Your task to perform on an android device: Show me productivity apps on the Play Store Image 0: 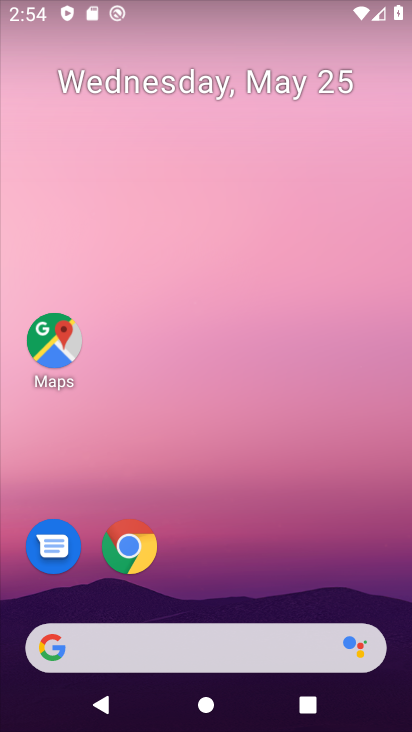
Step 0: click (178, 296)
Your task to perform on an android device: Show me productivity apps on the Play Store Image 1: 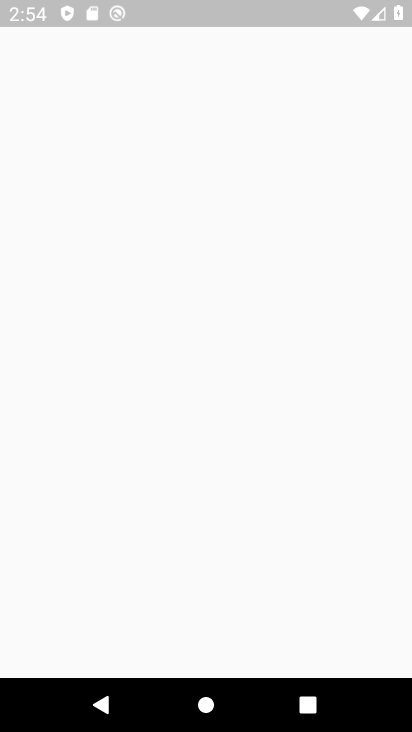
Step 1: press home button
Your task to perform on an android device: Show me productivity apps on the Play Store Image 2: 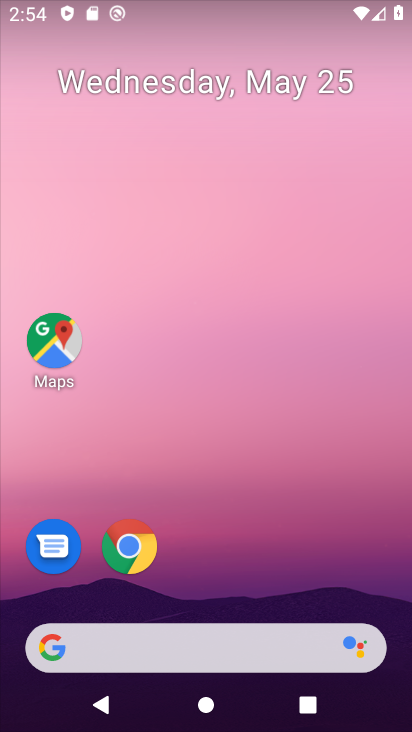
Step 2: drag from (223, 589) to (95, 132)
Your task to perform on an android device: Show me productivity apps on the Play Store Image 3: 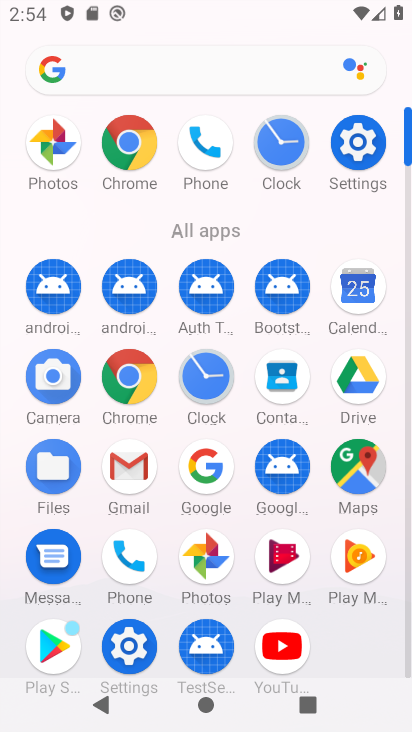
Step 3: click (50, 640)
Your task to perform on an android device: Show me productivity apps on the Play Store Image 4: 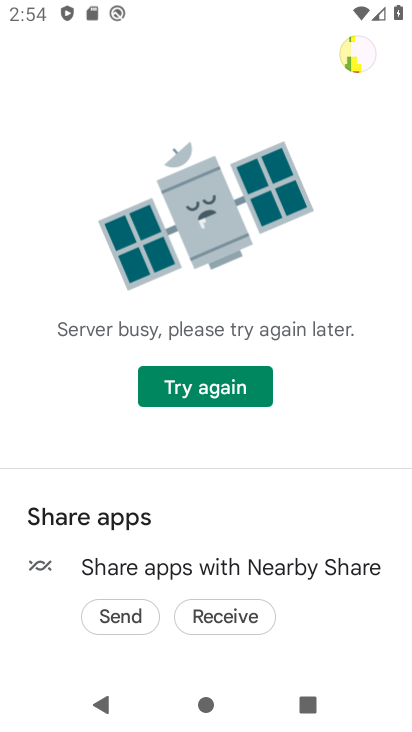
Step 4: click (229, 390)
Your task to perform on an android device: Show me productivity apps on the Play Store Image 5: 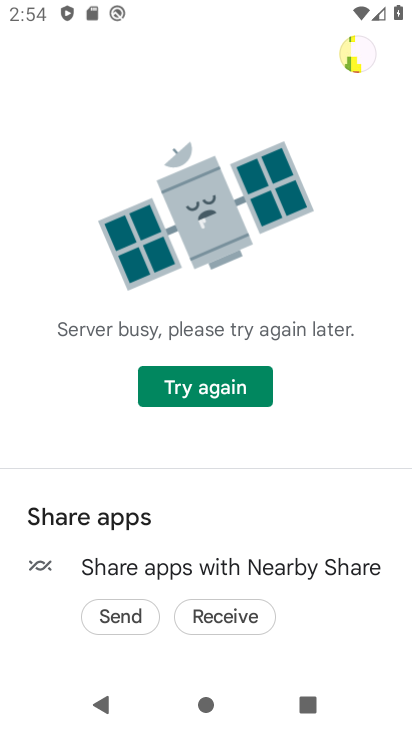
Step 5: click (229, 390)
Your task to perform on an android device: Show me productivity apps on the Play Store Image 6: 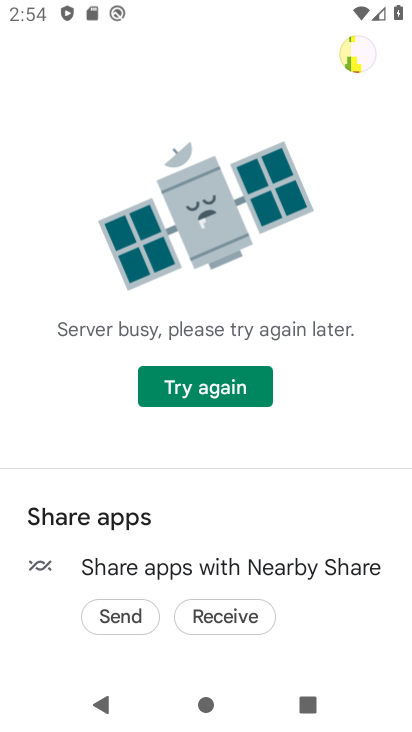
Step 6: task complete